Your task to perform on an android device: turn on sleep mode Image 0: 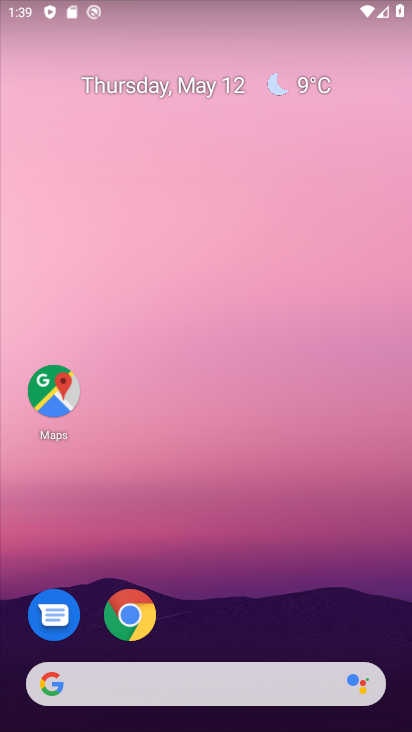
Step 0: drag from (182, 603) to (208, 30)
Your task to perform on an android device: turn on sleep mode Image 1: 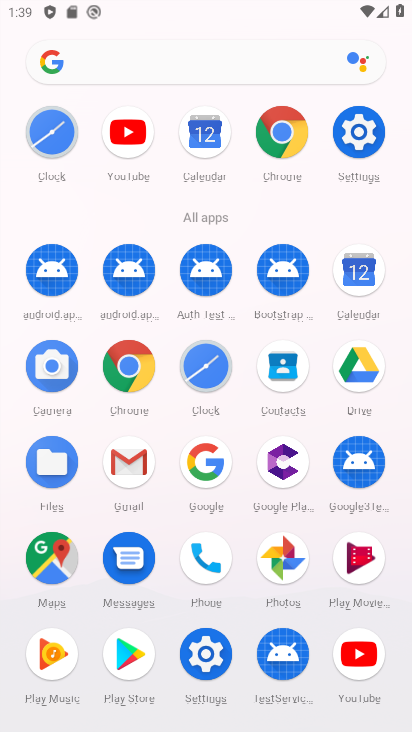
Step 1: click (217, 660)
Your task to perform on an android device: turn on sleep mode Image 2: 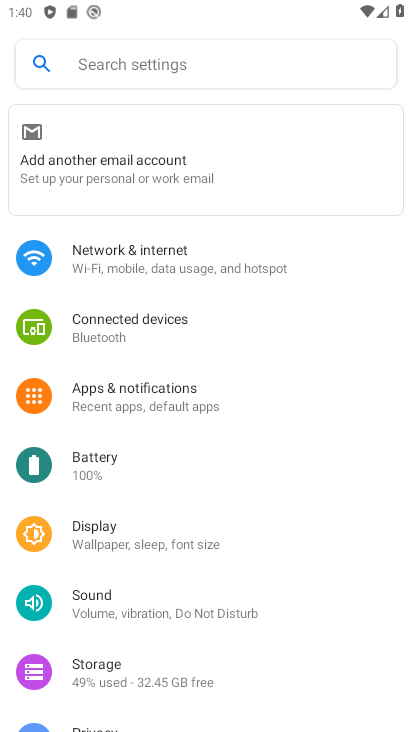
Step 2: click (119, 535)
Your task to perform on an android device: turn on sleep mode Image 3: 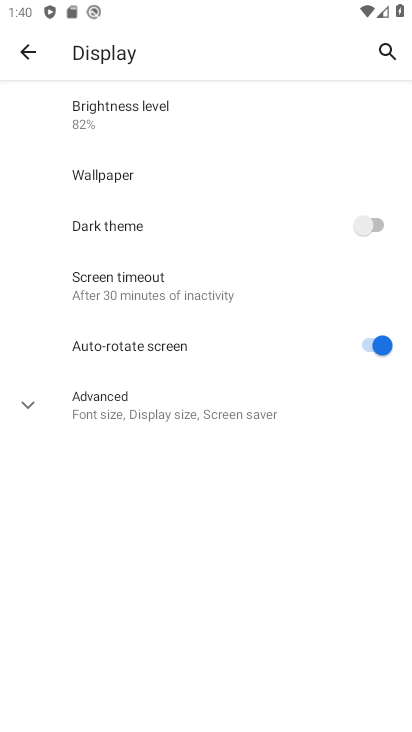
Step 3: click (117, 407)
Your task to perform on an android device: turn on sleep mode Image 4: 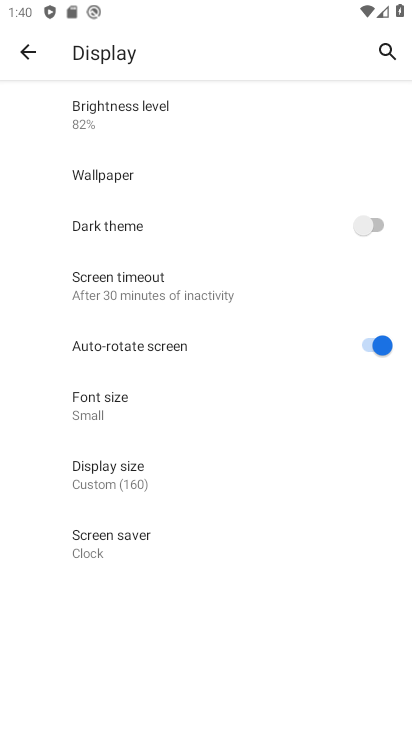
Step 4: task complete